Your task to perform on an android device: open wifi settings Image 0: 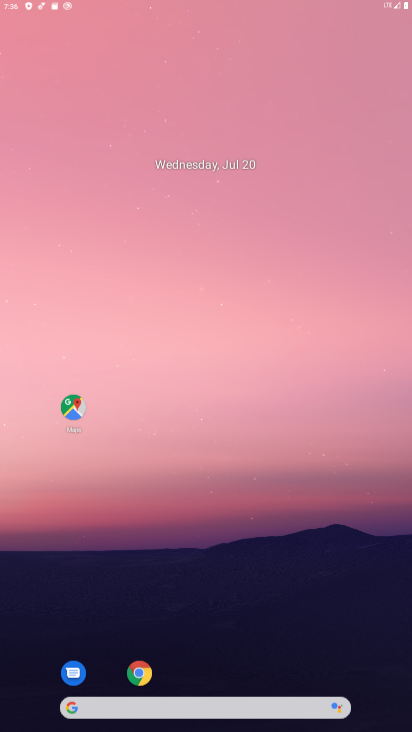
Step 0: click (395, 0)
Your task to perform on an android device: open wifi settings Image 1: 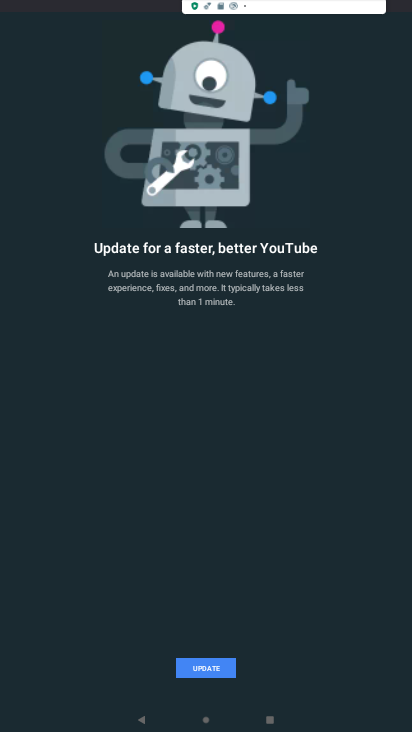
Step 1: press home button
Your task to perform on an android device: open wifi settings Image 2: 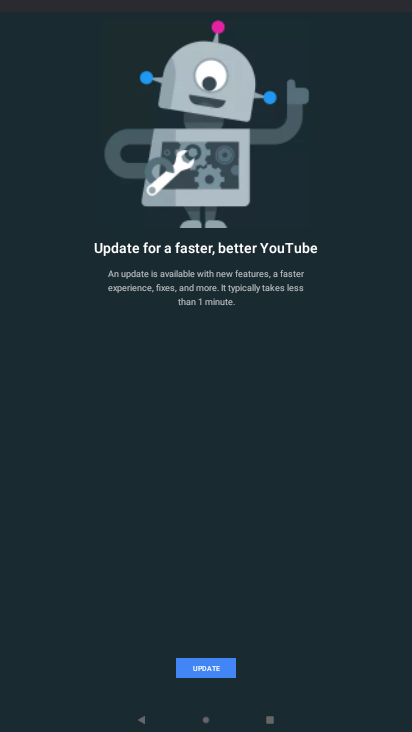
Step 2: drag from (395, 0) to (12, 341)
Your task to perform on an android device: open wifi settings Image 3: 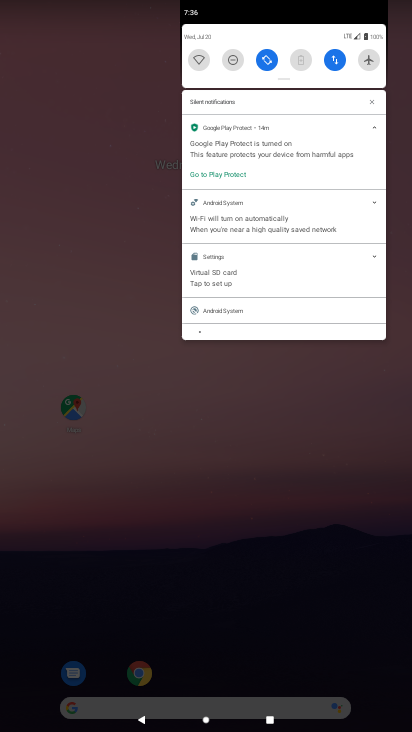
Step 3: drag from (309, 573) to (296, 56)
Your task to perform on an android device: open wifi settings Image 4: 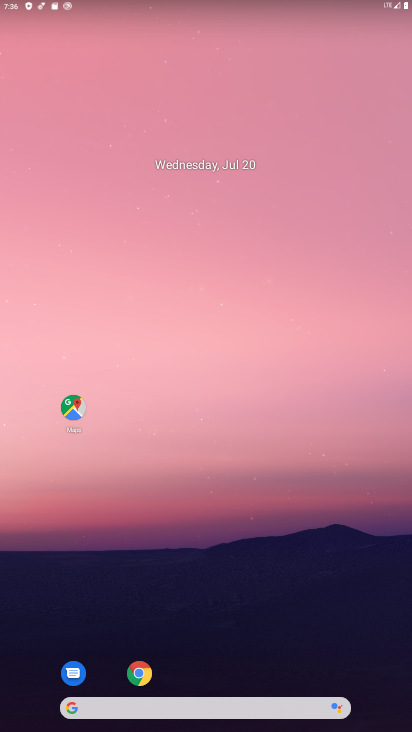
Step 4: drag from (318, 683) to (333, 121)
Your task to perform on an android device: open wifi settings Image 5: 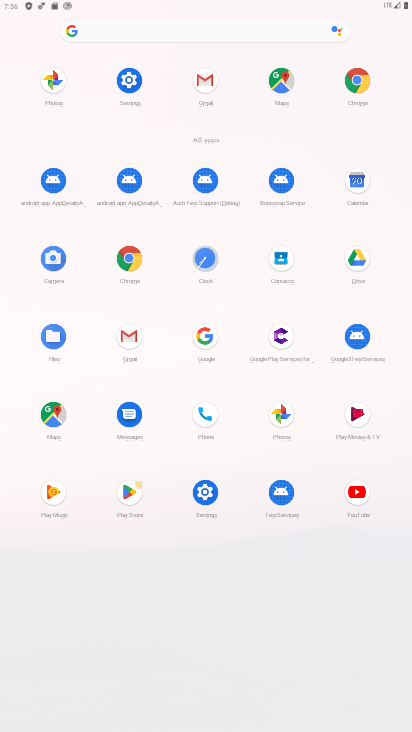
Step 5: click (129, 78)
Your task to perform on an android device: open wifi settings Image 6: 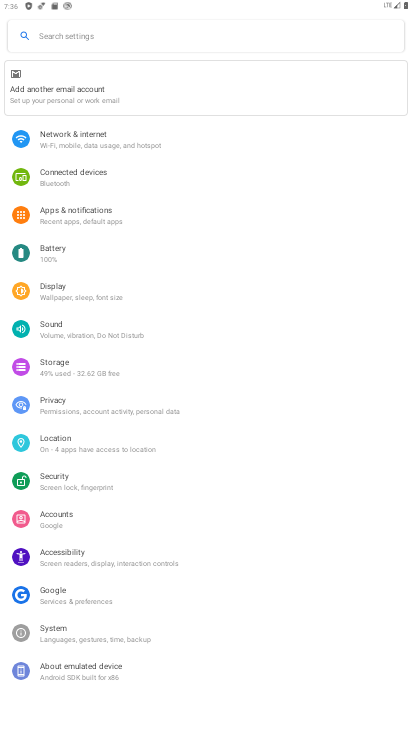
Step 6: click (75, 136)
Your task to perform on an android device: open wifi settings Image 7: 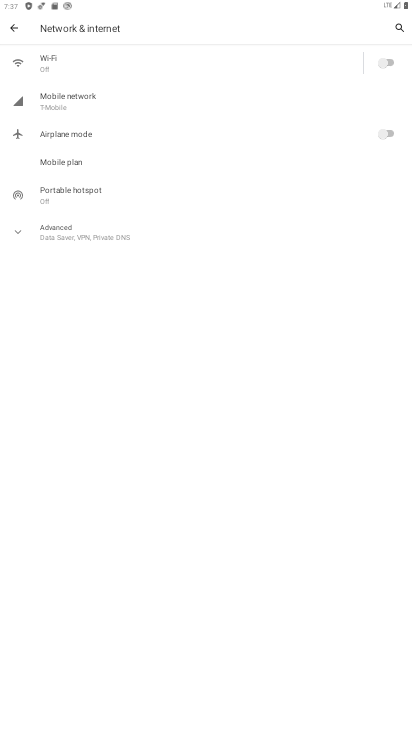
Step 7: click (64, 65)
Your task to perform on an android device: open wifi settings Image 8: 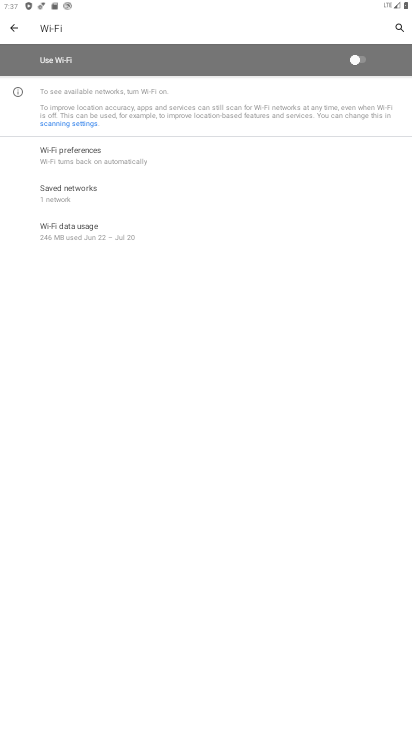
Step 8: task complete